Your task to perform on an android device: open a bookmark in the chrome app Image 0: 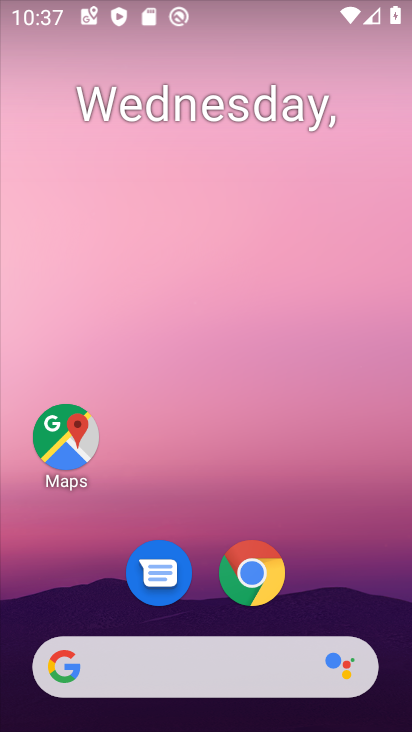
Step 0: click (244, 574)
Your task to perform on an android device: open a bookmark in the chrome app Image 1: 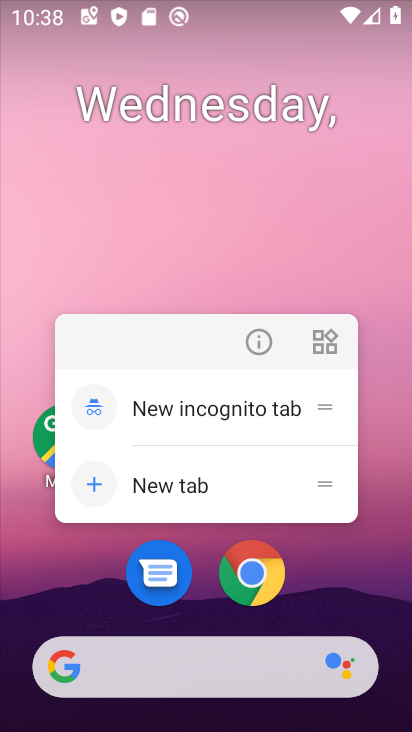
Step 1: click (241, 572)
Your task to perform on an android device: open a bookmark in the chrome app Image 2: 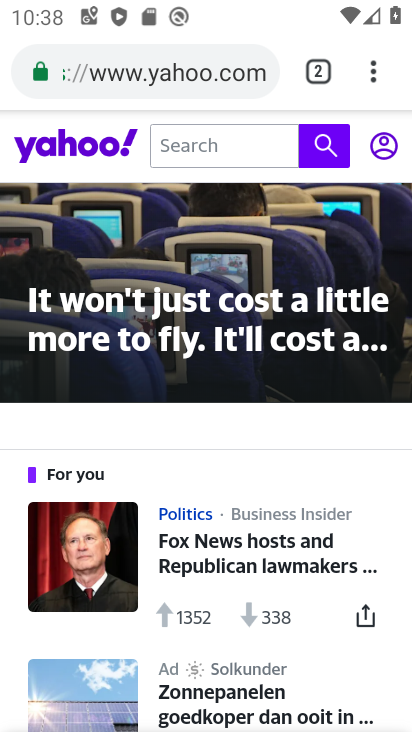
Step 2: click (371, 63)
Your task to perform on an android device: open a bookmark in the chrome app Image 3: 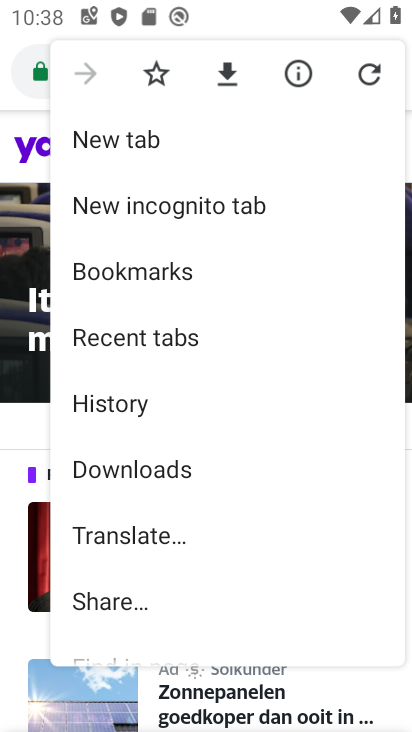
Step 3: click (124, 278)
Your task to perform on an android device: open a bookmark in the chrome app Image 4: 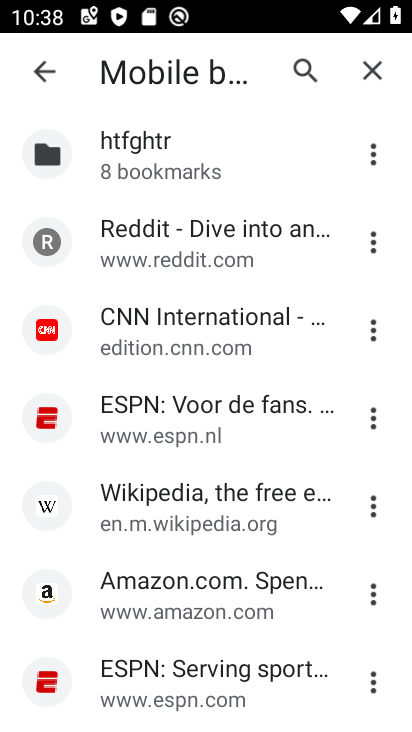
Step 4: task complete